Your task to perform on an android device: Open Youtube and go to "Your channel" Image 0: 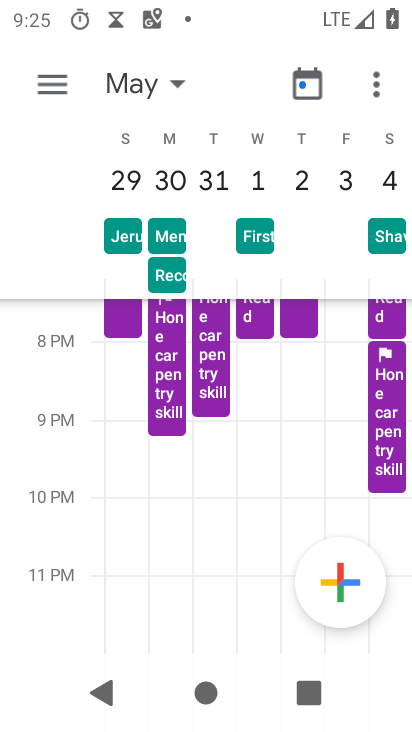
Step 0: press home button
Your task to perform on an android device: Open Youtube and go to "Your channel" Image 1: 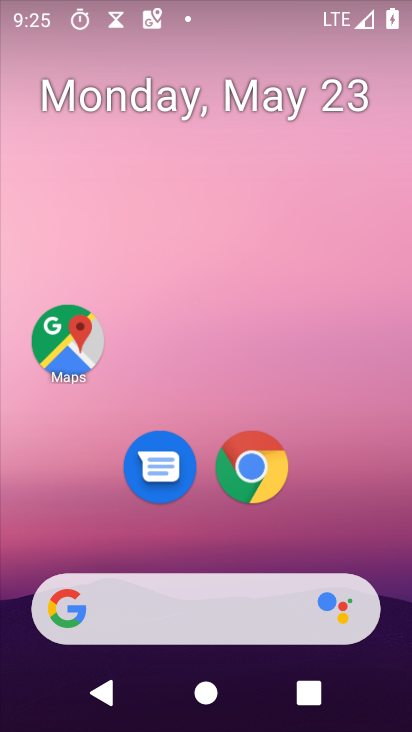
Step 1: drag from (318, 532) to (269, 43)
Your task to perform on an android device: Open Youtube and go to "Your channel" Image 2: 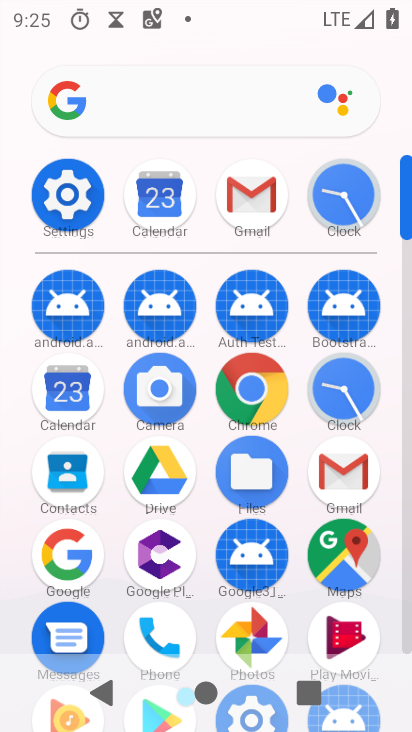
Step 2: drag from (330, 571) to (279, 126)
Your task to perform on an android device: Open Youtube and go to "Your channel" Image 3: 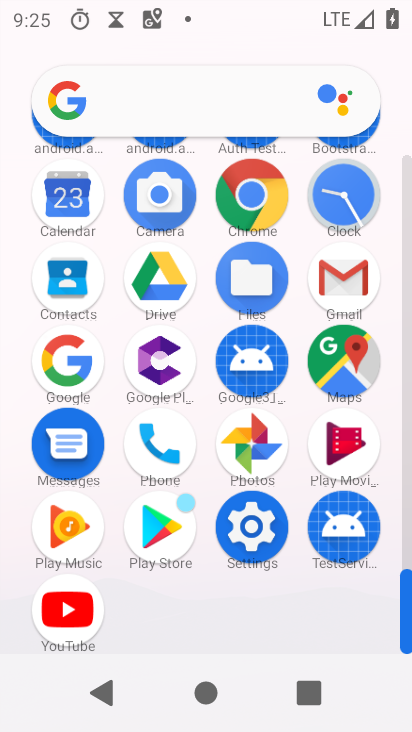
Step 3: click (66, 615)
Your task to perform on an android device: Open Youtube and go to "Your channel" Image 4: 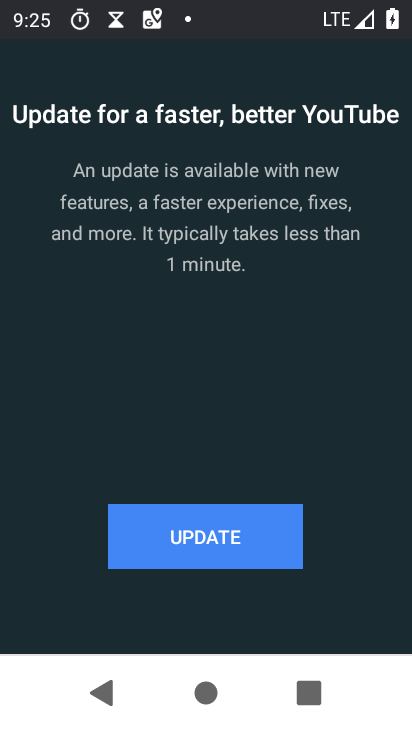
Step 4: click (281, 541)
Your task to perform on an android device: Open Youtube and go to "Your channel" Image 5: 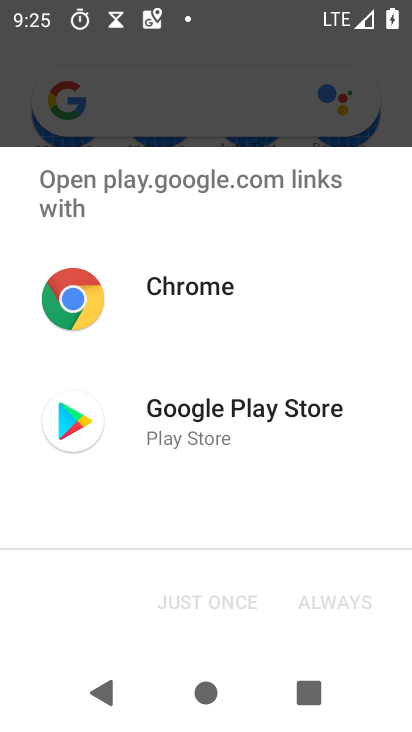
Step 5: click (168, 388)
Your task to perform on an android device: Open Youtube and go to "Your channel" Image 6: 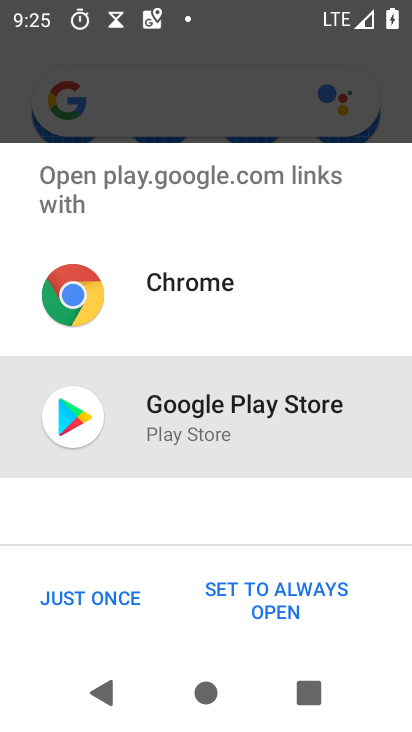
Step 6: click (169, 601)
Your task to perform on an android device: Open Youtube and go to "Your channel" Image 7: 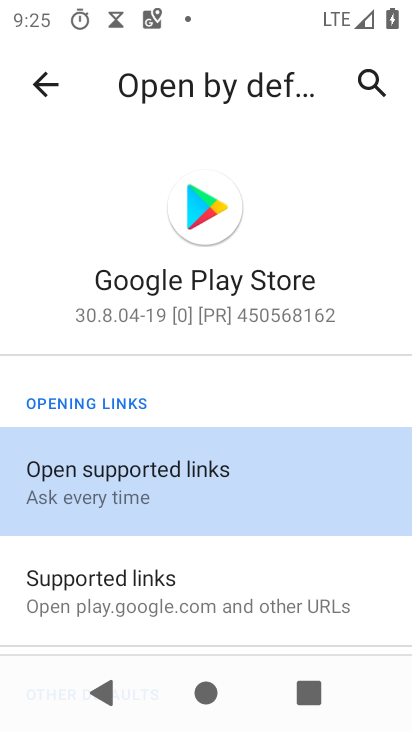
Step 7: click (44, 85)
Your task to perform on an android device: Open Youtube and go to "Your channel" Image 8: 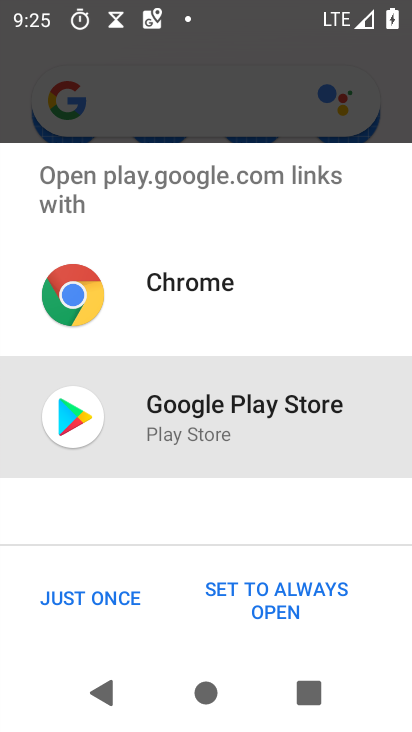
Step 8: click (93, 594)
Your task to perform on an android device: Open Youtube and go to "Your channel" Image 9: 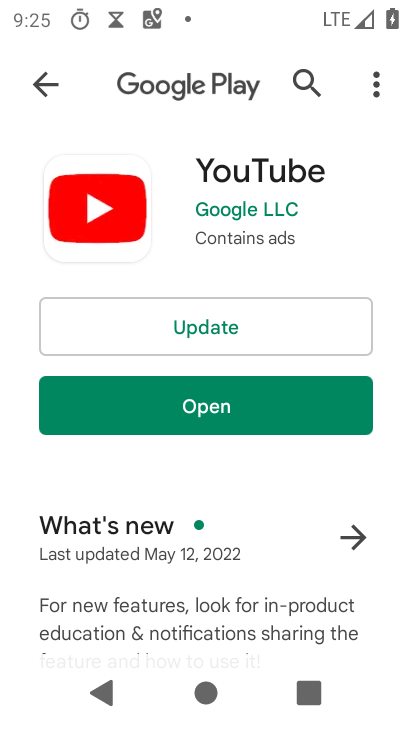
Step 9: click (185, 321)
Your task to perform on an android device: Open Youtube and go to "Your channel" Image 10: 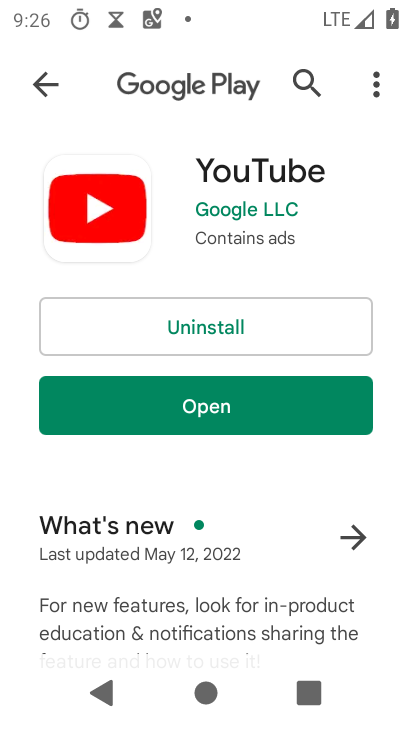
Step 10: click (287, 411)
Your task to perform on an android device: Open Youtube and go to "Your channel" Image 11: 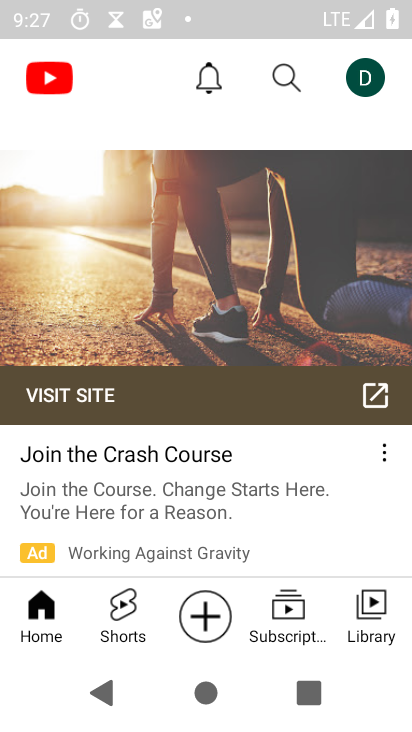
Step 11: click (371, 84)
Your task to perform on an android device: Open Youtube and go to "Your channel" Image 12: 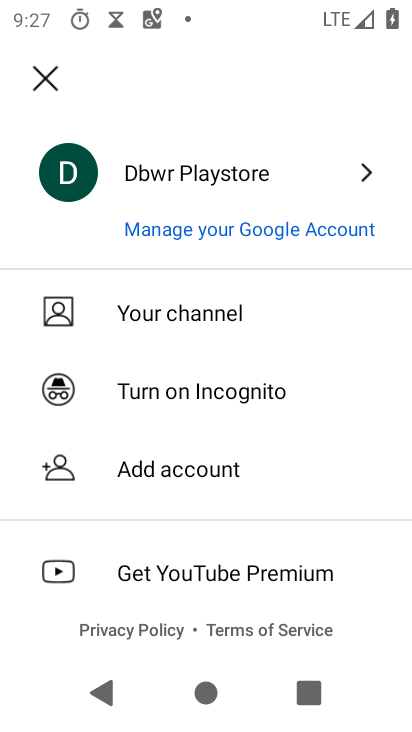
Step 12: click (172, 311)
Your task to perform on an android device: Open Youtube and go to "Your channel" Image 13: 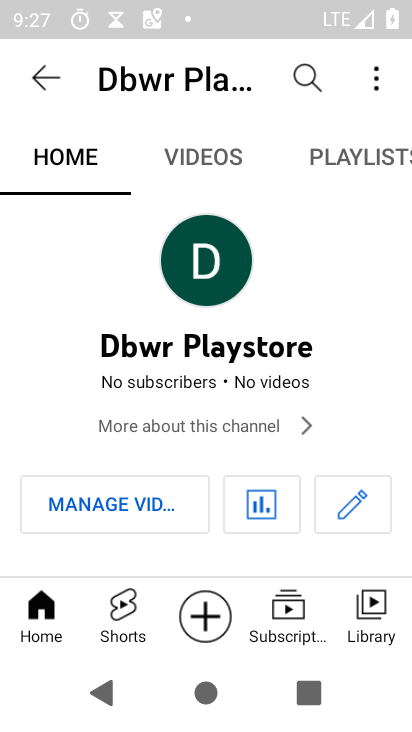
Step 13: task complete